Your task to perform on an android device: open a bookmark in the chrome app Image 0: 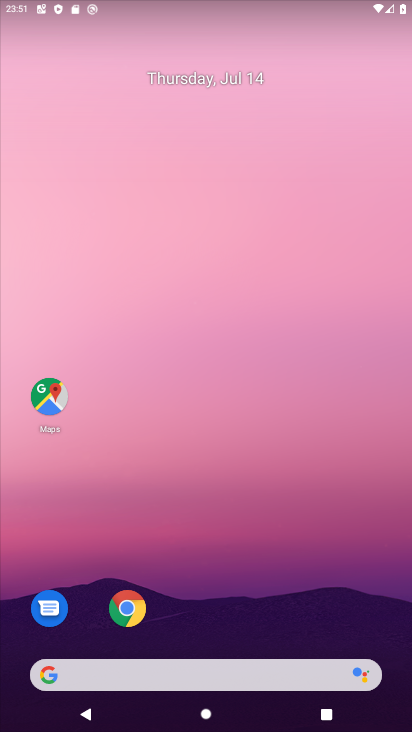
Step 0: click (116, 609)
Your task to perform on an android device: open a bookmark in the chrome app Image 1: 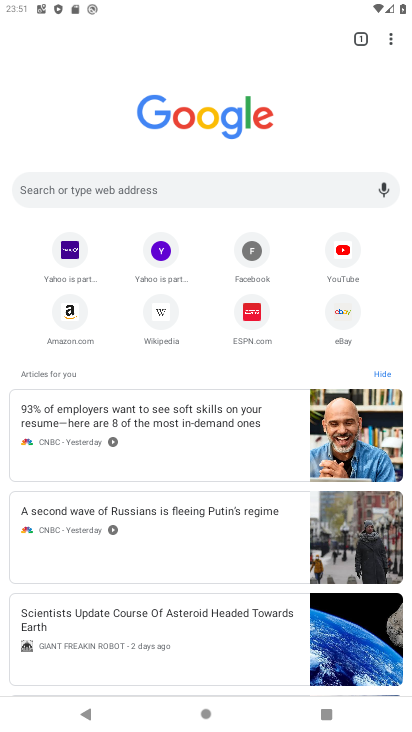
Step 1: click (387, 26)
Your task to perform on an android device: open a bookmark in the chrome app Image 2: 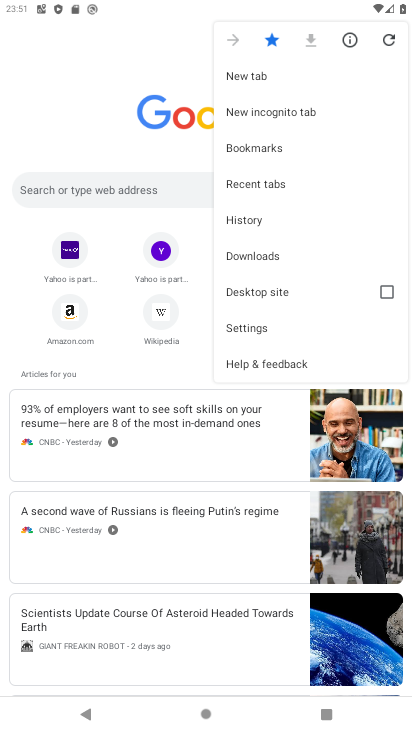
Step 2: click (234, 150)
Your task to perform on an android device: open a bookmark in the chrome app Image 3: 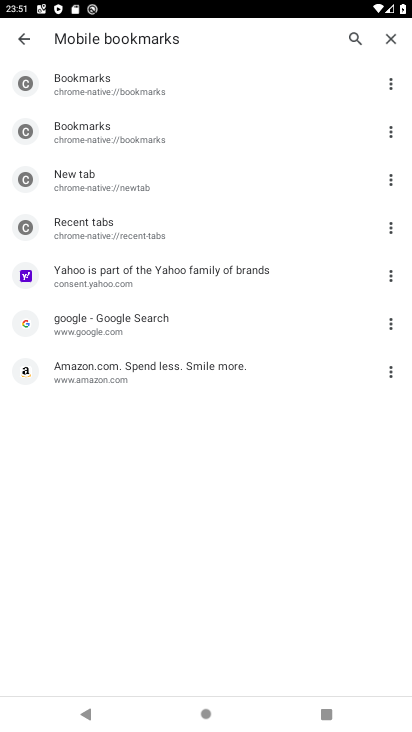
Step 3: task complete